Your task to perform on an android device: Show me popular games on the Play Store Image 0: 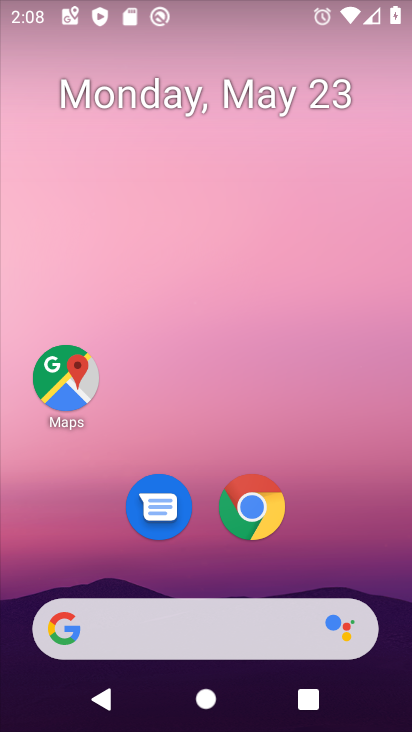
Step 0: drag from (221, 723) to (210, 138)
Your task to perform on an android device: Show me popular games on the Play Store Image 1: 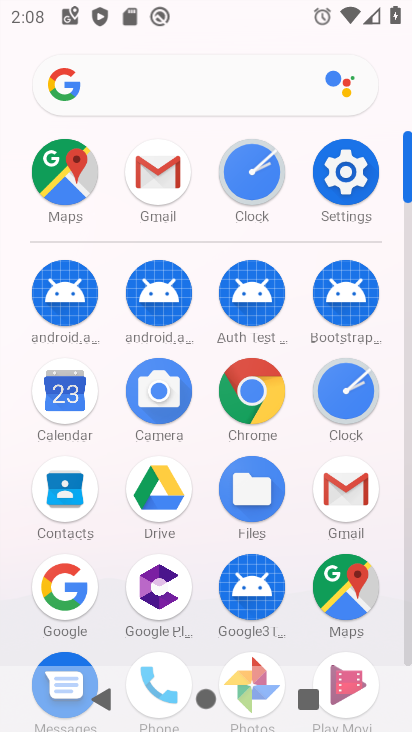
Step 1: drag from (209, 647) to (204, 146)
Your task to perform on an android device: Show me popular games on the Play Store Image 2: 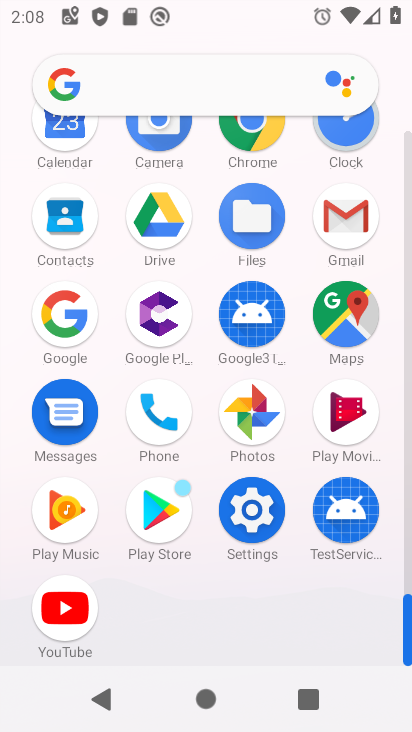
Step 2: click (162, 506)
Your task to perform on an android device: Show me popular games on the Play Store Image 3: 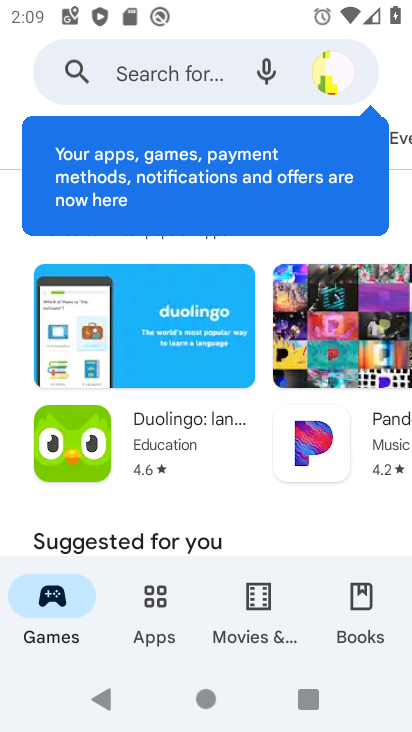
Step 3: drag from (195, 563) to (181, 290)
Your task to perform on an android device: Show me popular games on the Play Store Image 4: 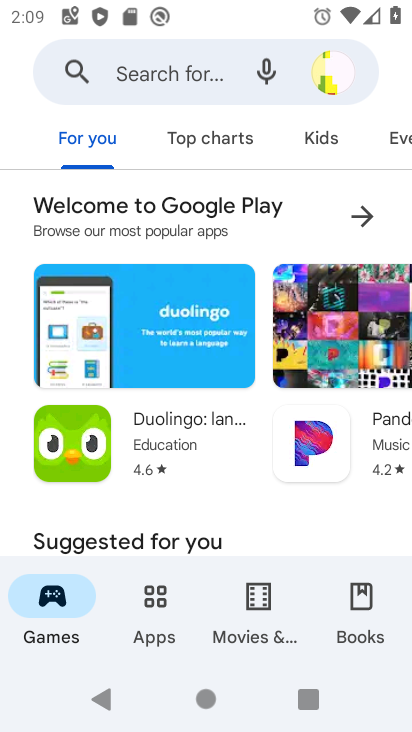
Step 4: drag from (207, 612) to (214, 287)
Your task to perform on an android device: Show me popular games on the Play Store Image 5: 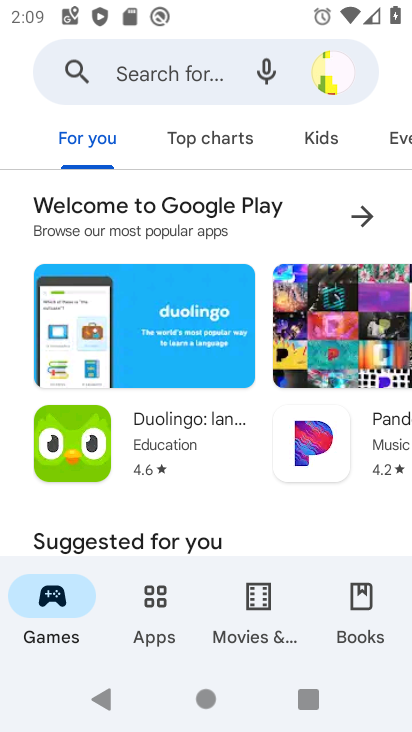
Step 5: drag from (226, 535) to (220, 176)
Your task to perform on an android device: Show me popular games on the Play Store Image 6: 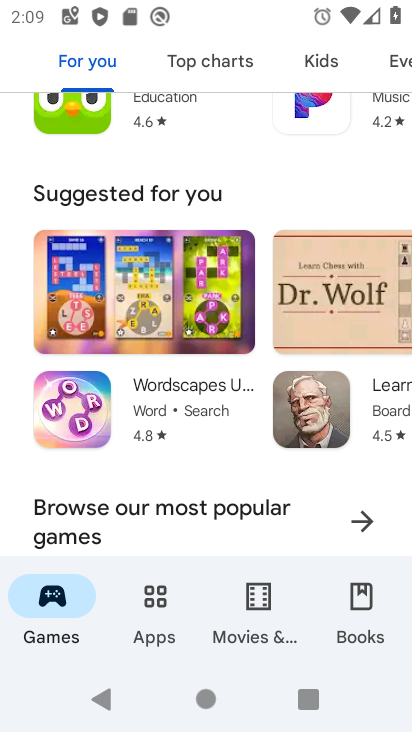
Step 6: click (239, 509)
Your task to perform on an android device: Show me popular games on the Play Store Image 7: 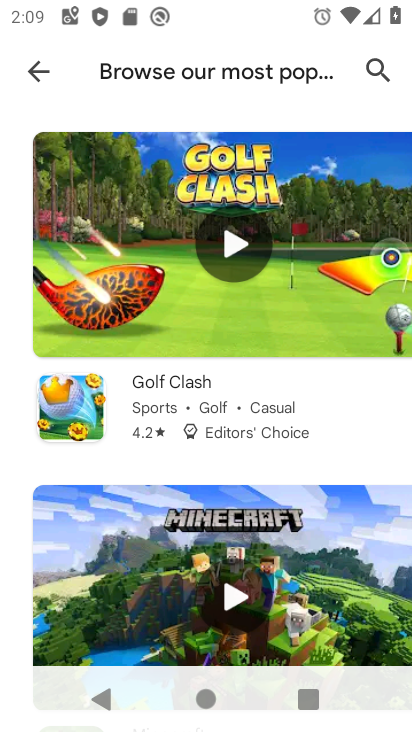
Step 7: task complete